Your task to perform on an android device: Open notification settings Image 0: 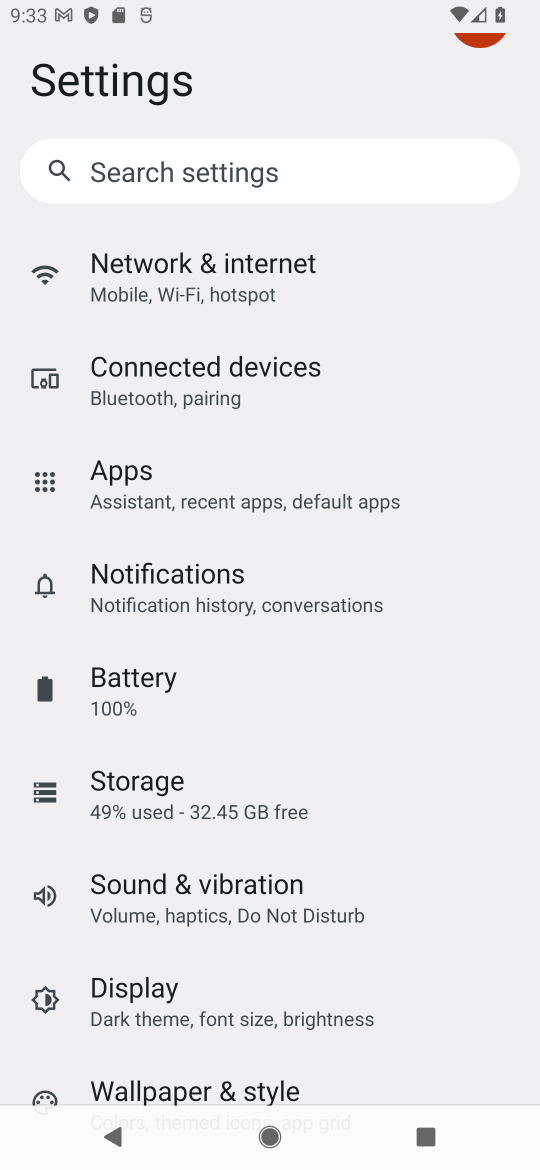
Step 0: click (280, 570)
Your task to perform on an android device: Open notification settings Image 1: 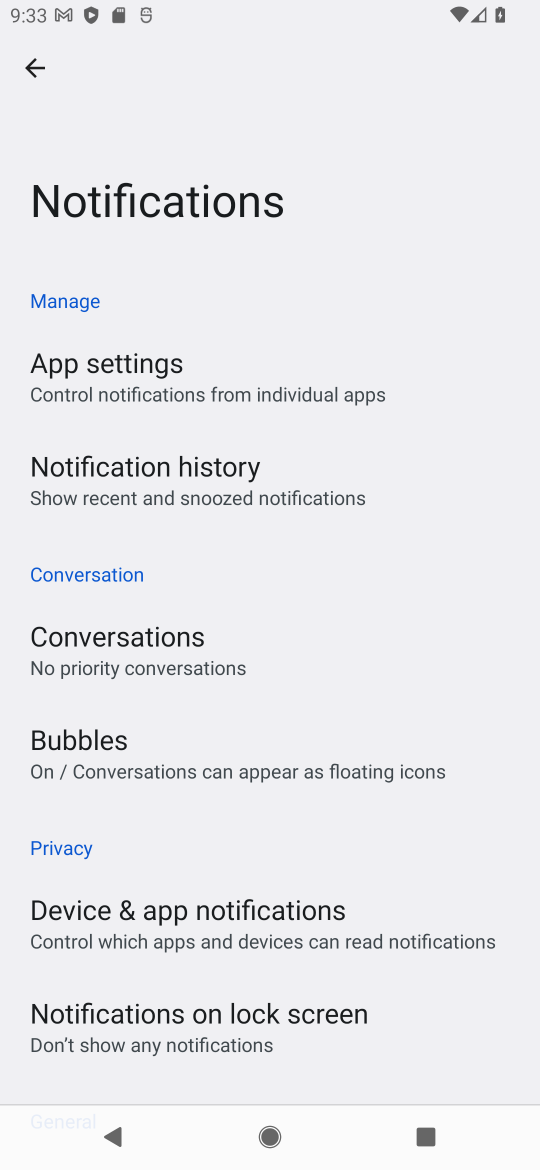
Step 1: drag from (340, 852) to (218, 437)
Your task to perform on an android device: Open notification settings Image 2: 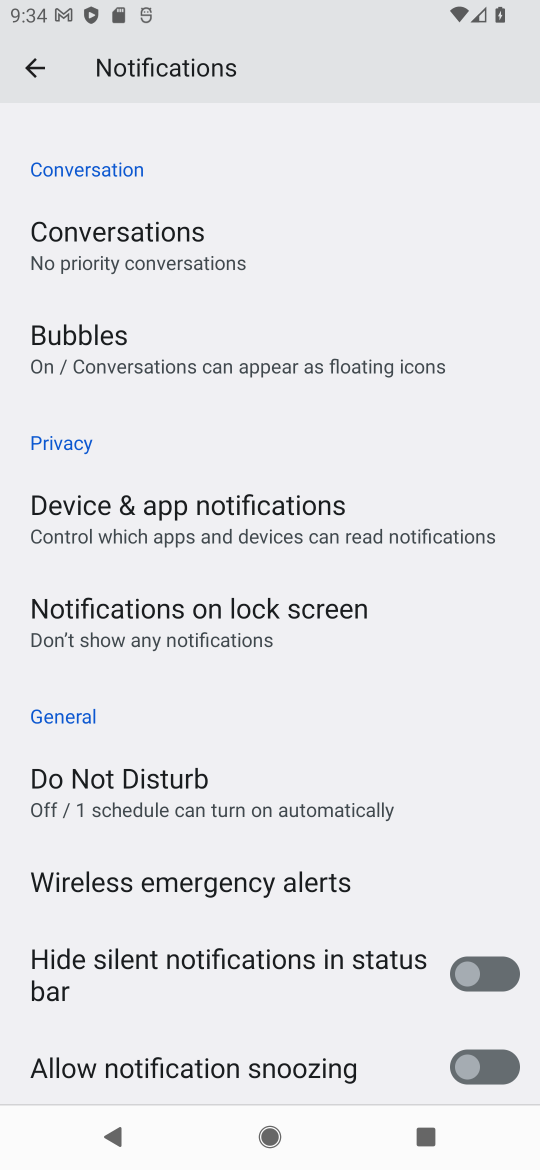
Step 2: click (482, 992)
Your task to perform on an android device: Open notification settings Image 3: 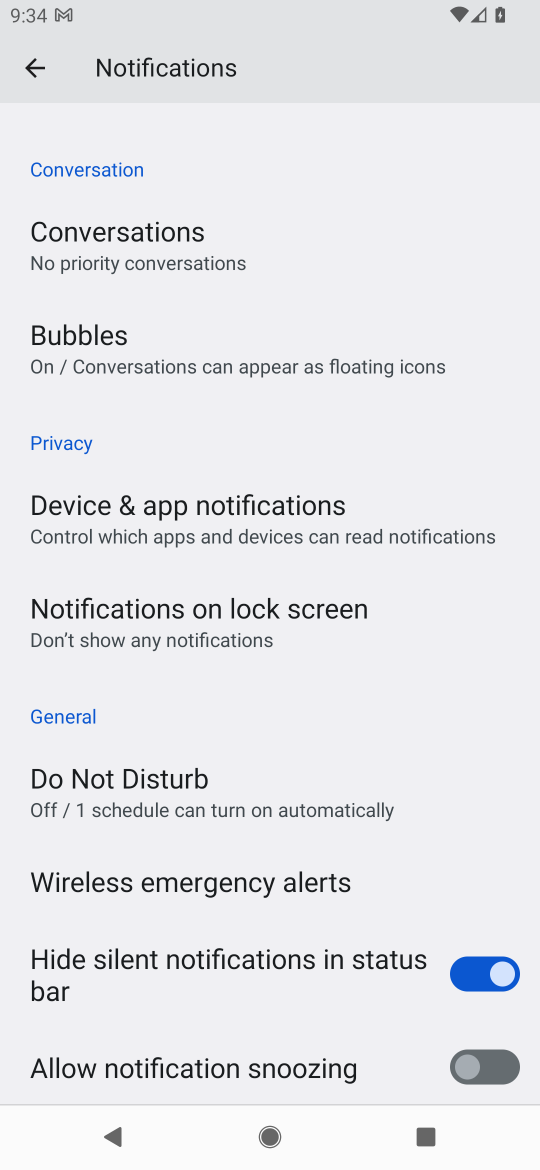
Step 3: click (488, 1080)
Your task to perform on an android device: Open notification settings Image 4: 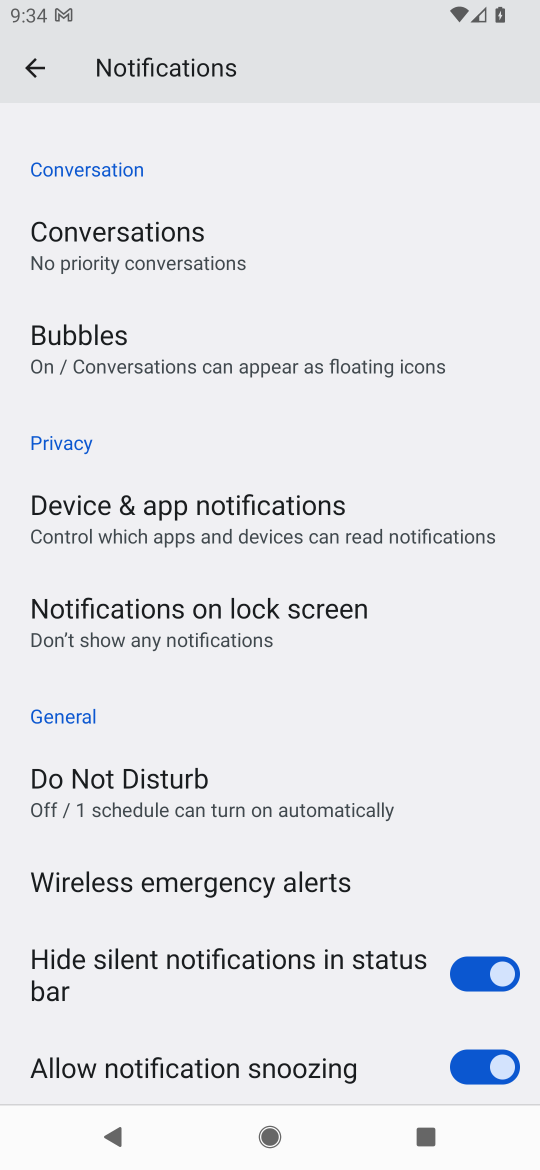
Step 4: task complete